Your task to perform on an android device: When is my next meeting? Image 0: 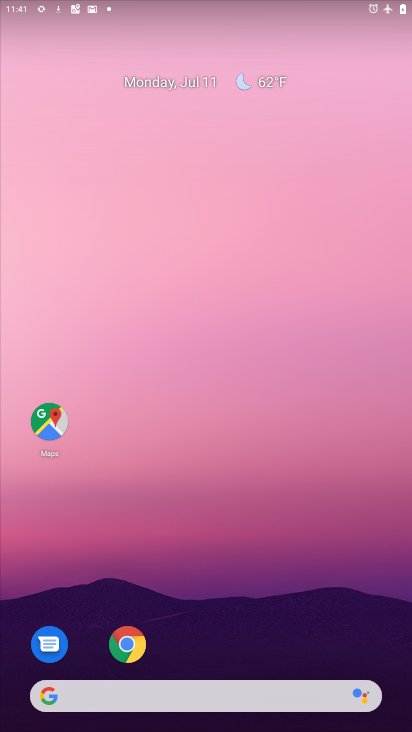
Step 0: drag from (199, 692) to (211, 132)
Your task to perform on an android device: When is my next meeting? Image 1: 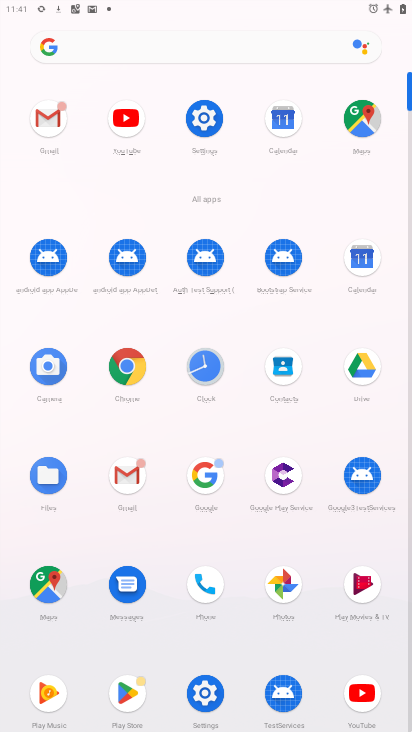
Step 1: click (351, 260)
Your task to perform on an android device: When is my next meeting? Image 2: 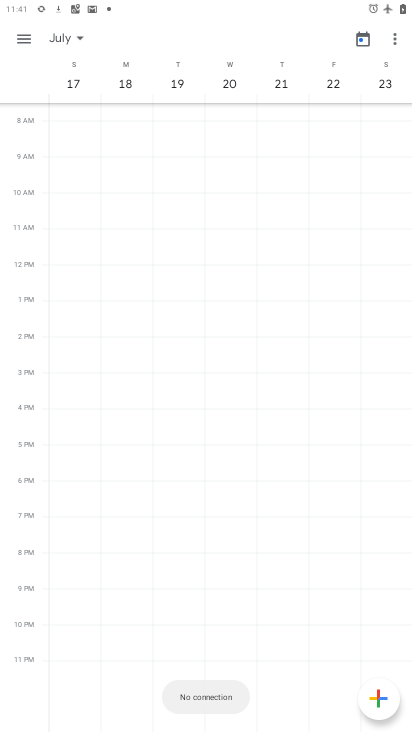
Step 2: click (0, 22)
Your task to perform on an android device: When is my next meeting? Image 3: 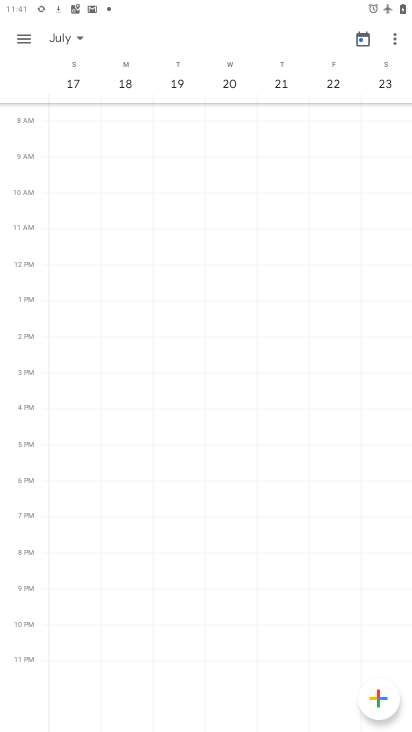
Step 3: click (362, 32)
Your task to perform on an android device: When is my next meeting? Image 4: 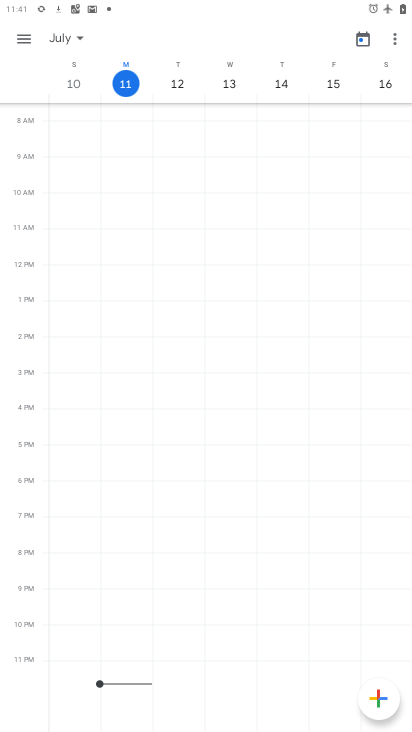
Step 4: click (16, 42)
Your task to perform on an android device: When is my next meeting? Image 5: 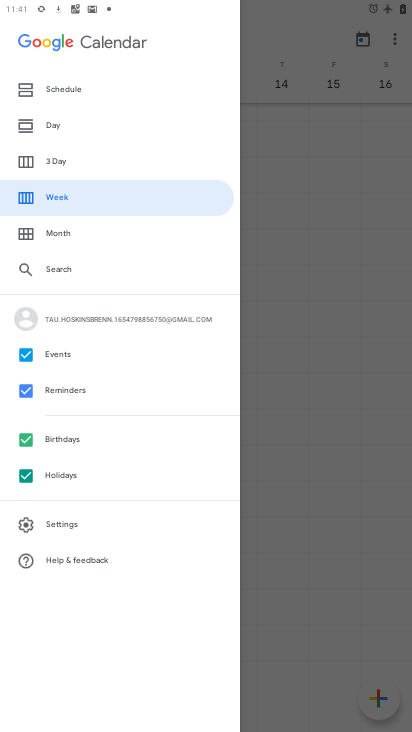
Step 5: drag from (104, 538) to (123, 100)
Your task to perform on an android device: When is my next meeting? Image 6: 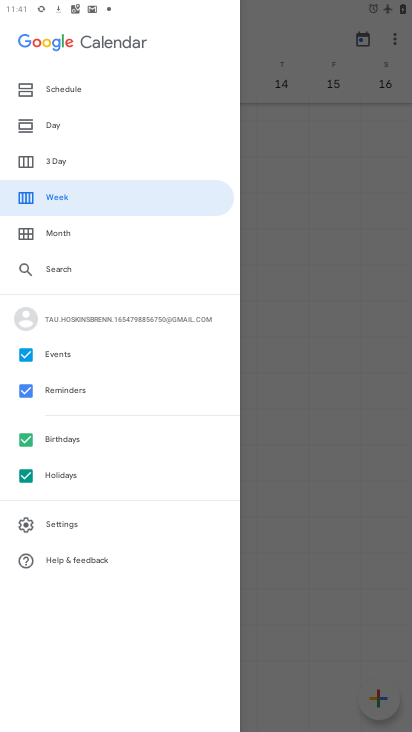
Step 6: click (62, 526)
Your task to perform on an android device: When is my next meeting? Image 7: 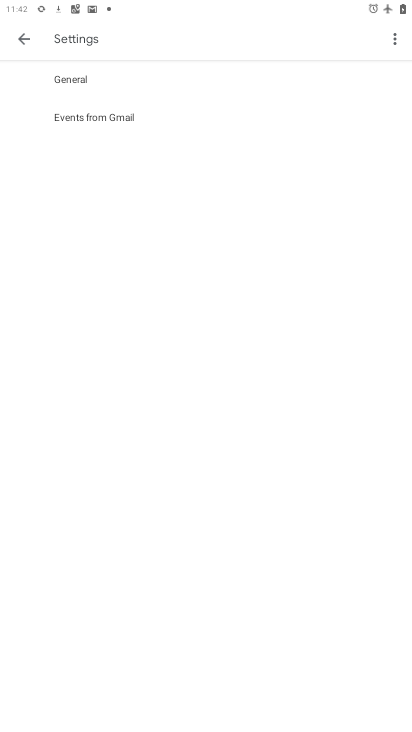
Step 7: task complete